Your task to perform on an android device: What's the weather today? Image 0: 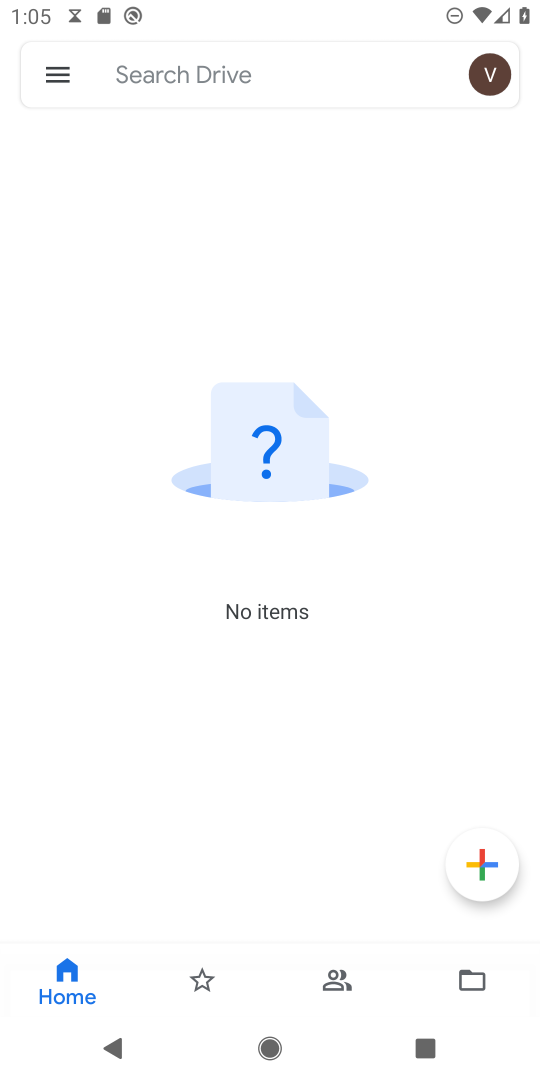
Step 0: press back button
Your task to perform on an android device: What's the weather today? Image 1: 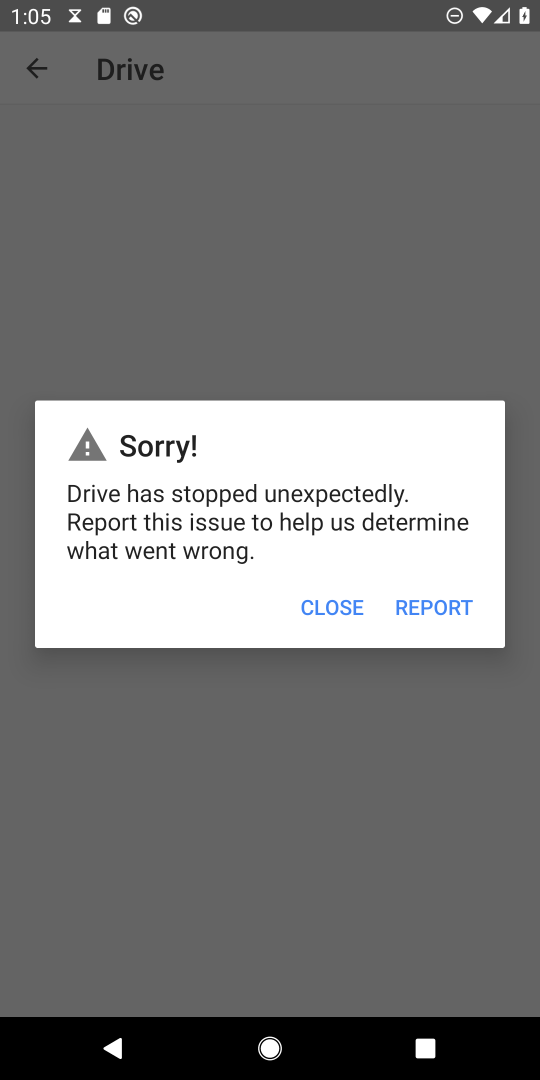
Step 1: press home button
Your task to perform on an android device: What's the weather today? Image 2: 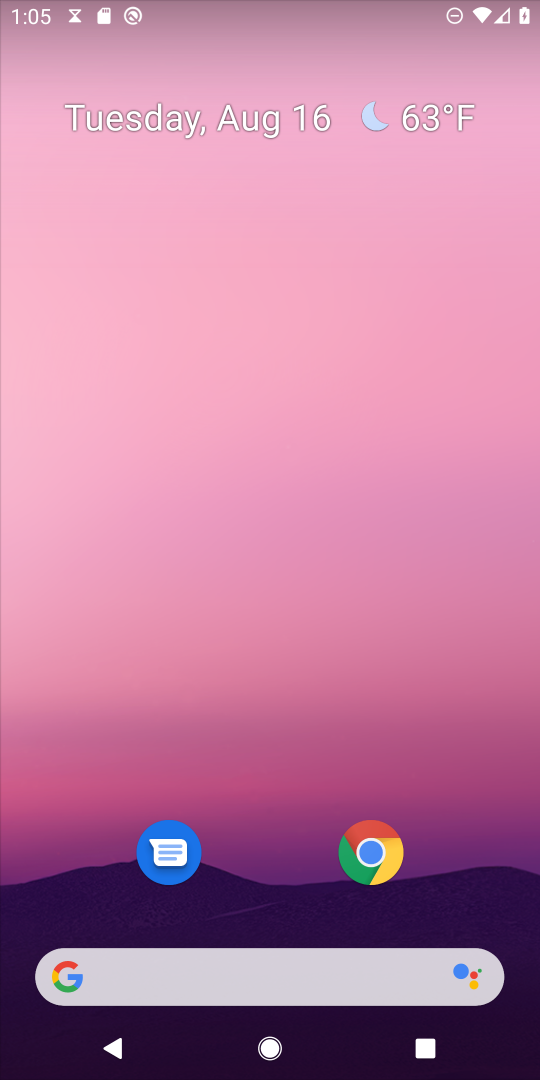
Step 2: click (193, 980)
Your task to perform on an android device: What's the weather today? Image 3: 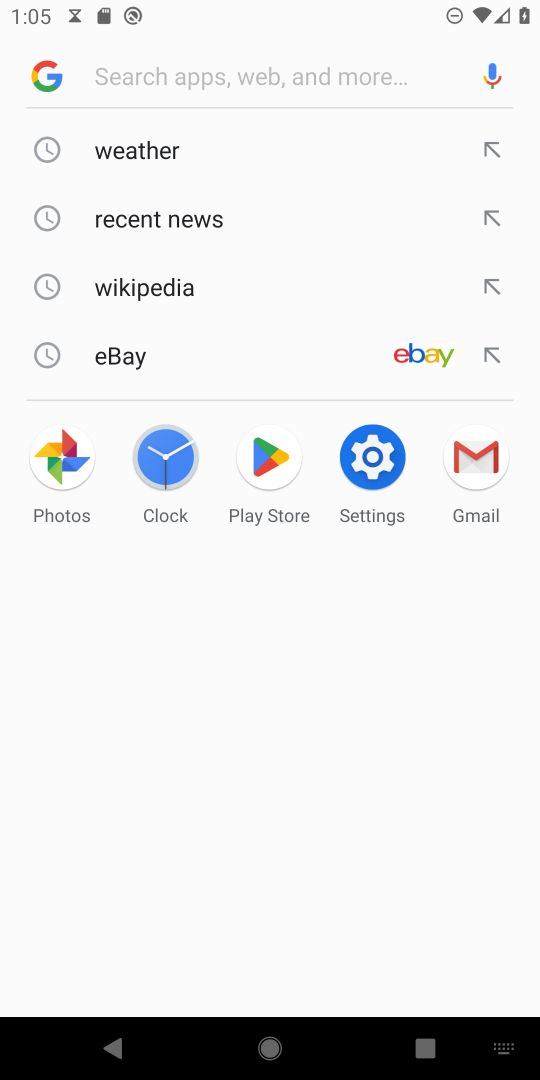
Step 3: click (149, 139)
Your task to perform on an android device: What's the weather today? Image 4: 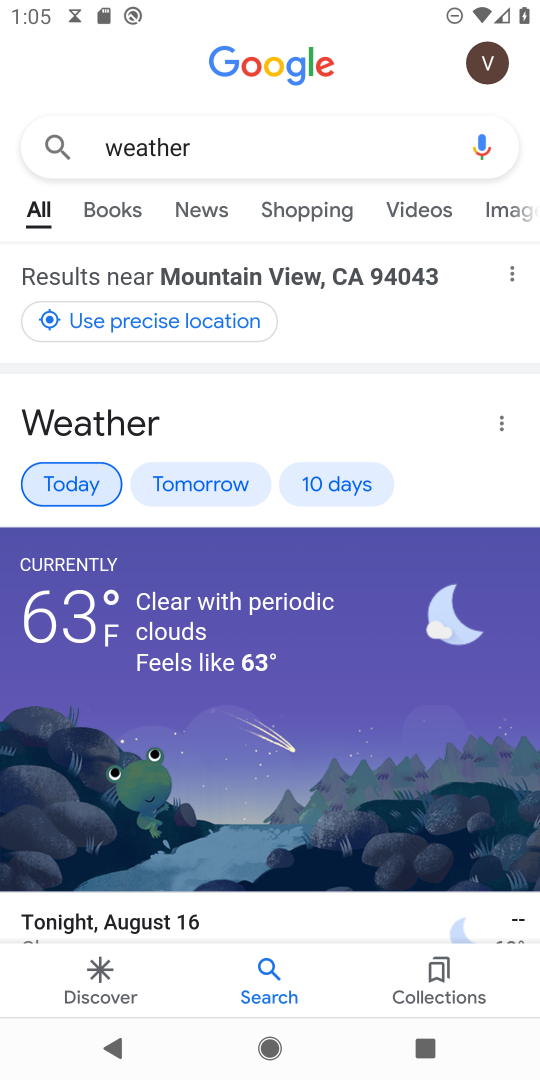
Step 4: task complete